Your task to perform on an android device: Open battery settings Image 0: 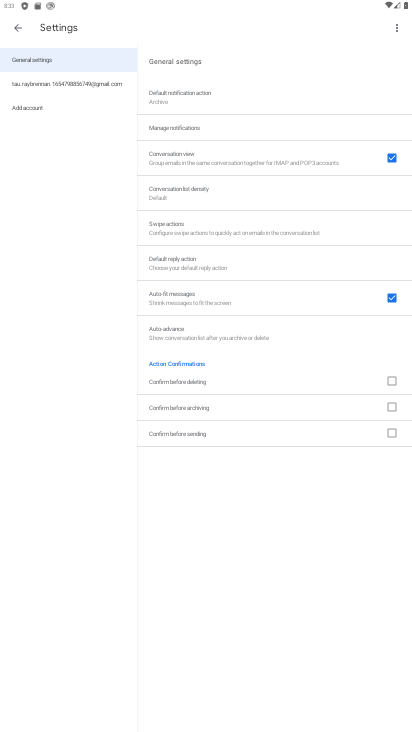
Step 0: drag from (168, 5) to (199, 728)
Your task to perform on an android device: Open battery settings Image 1: 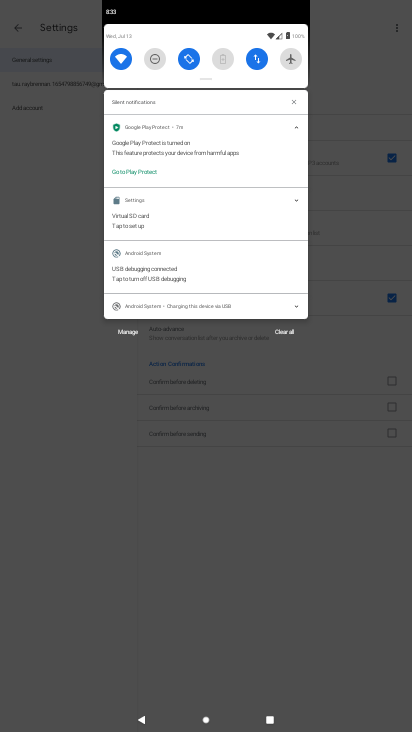
Step 1: click (224, 61)
Your task to perform on an android device: Open battery settings Image 2: 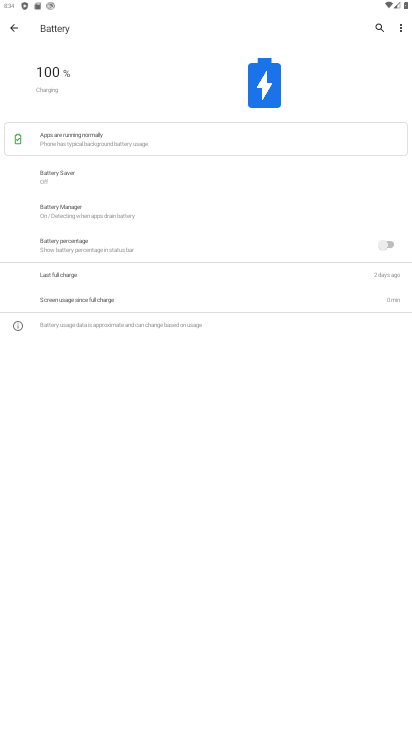
Step 2: task complete